Your task to perform on an android device: move a message to another label in the gmail app Image 0: 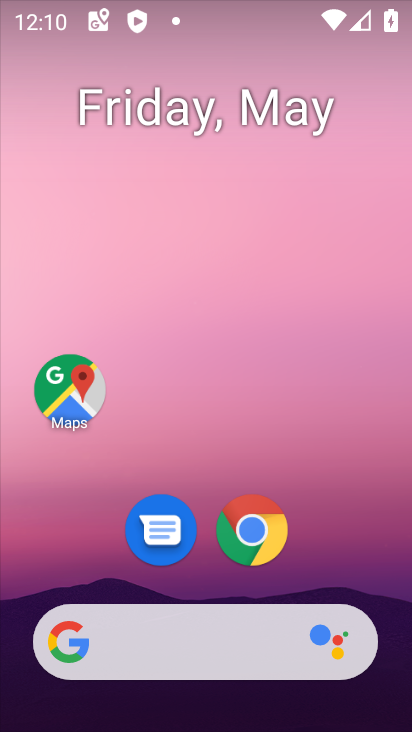
Step 0: drag from (347, 561) to (218, 89)
Your task to perform on an android device: move a message to another label in the gmail app Image 1: 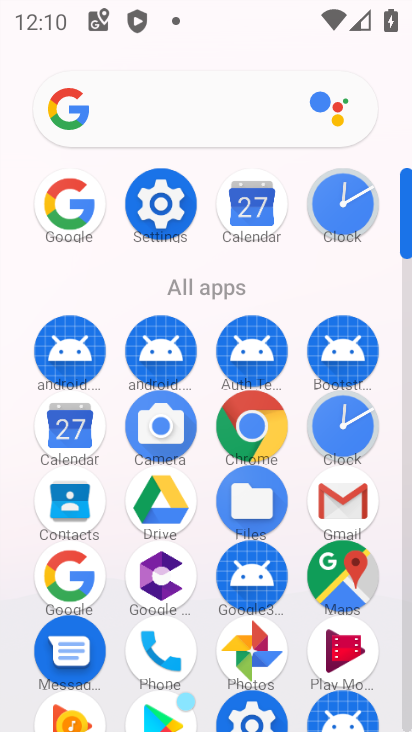
Step 1: click (341, 500)
Your task to perform on an android device: move a message to another label in the gmail app Image 2: 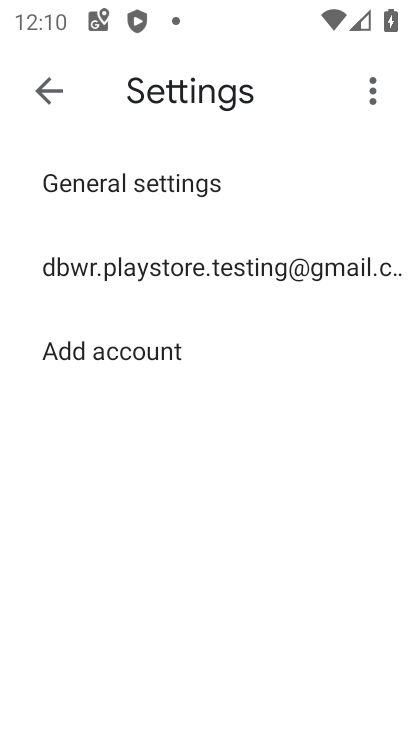
Step 2: click (47, 81)
Your task to perform on an android device: move a message to another label in the gmail app Image 3: 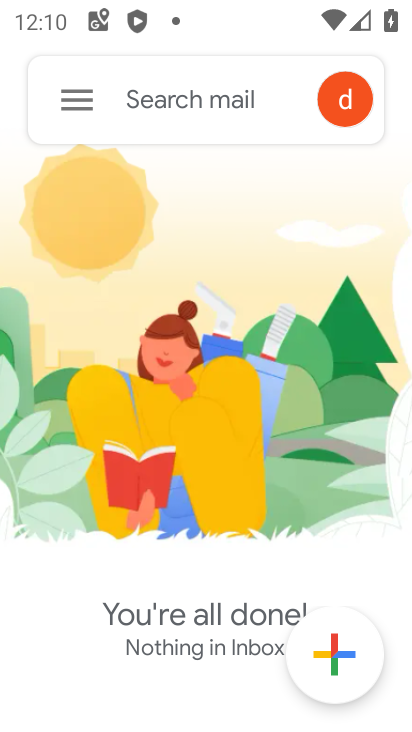
Step 3: click (62, 102)
Your task to perform on an android device: move a message to another label in the gmail app Image 4: 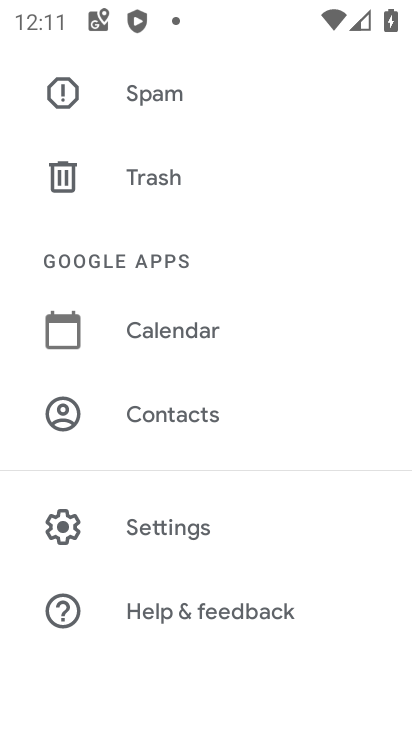
Step 4: drag from (188, 337) to (196, 441)
Your task to perform on an android device: move a message to another label in the gmail app Image 5: 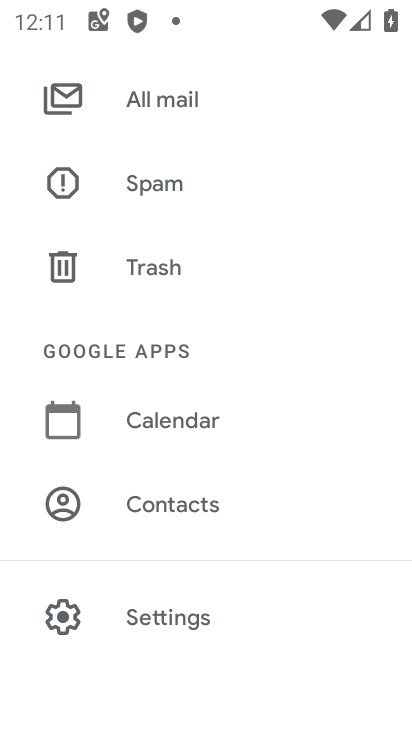
Step 5: drag from (173, 222) to (195, 418)
Your task to perform on an android device: move a message to another label in the gmail app Image 6: 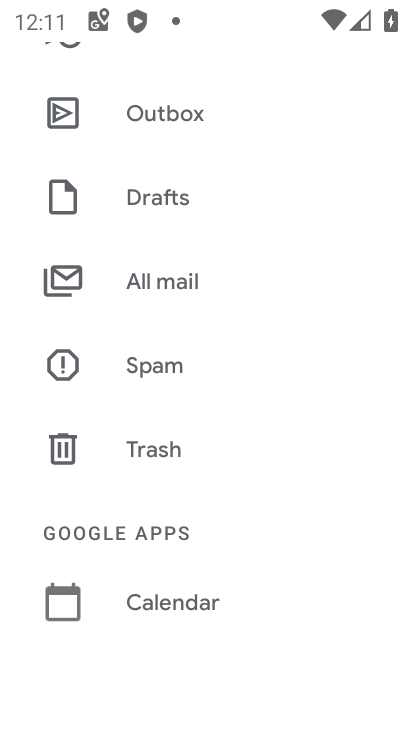
Step 6: click (159, 272)
Your task to perform on an android device: move a message to another label in the gmail app Image 7: 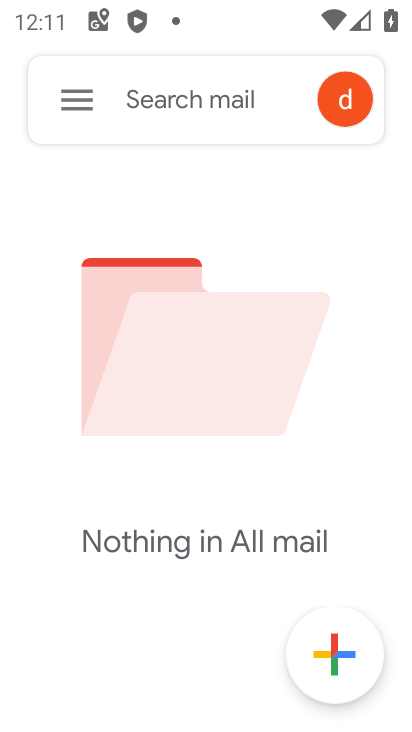
Step 7: click (71, 108)
Your task to perform on an android device: move a message to another label in the gmail app Image 8: 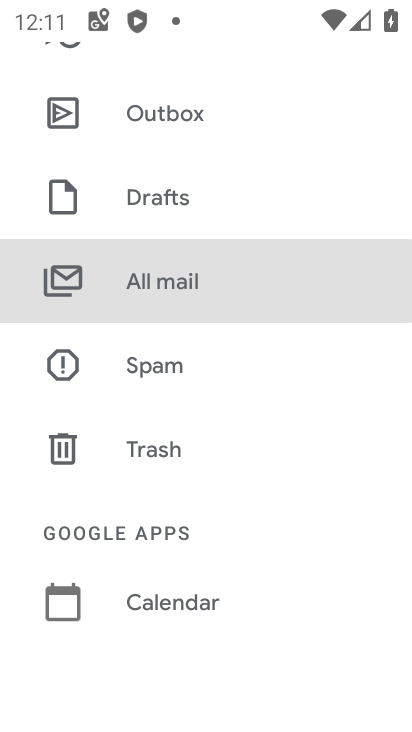
Step 8: drag from (174, 177) to (201, 301)
Your task to perform on an android device: move a message to another label in the gmail app Image 9: 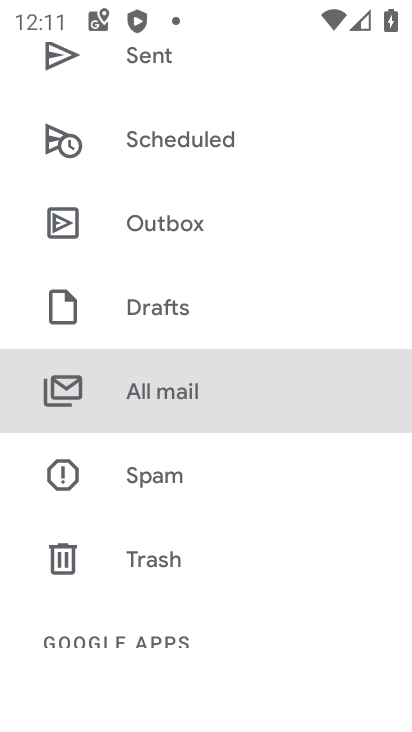
Step 9: drag from (180, 187) to (198, 370)
Your task to perform on an android device: move a message to another label in the gmail app Image 10: 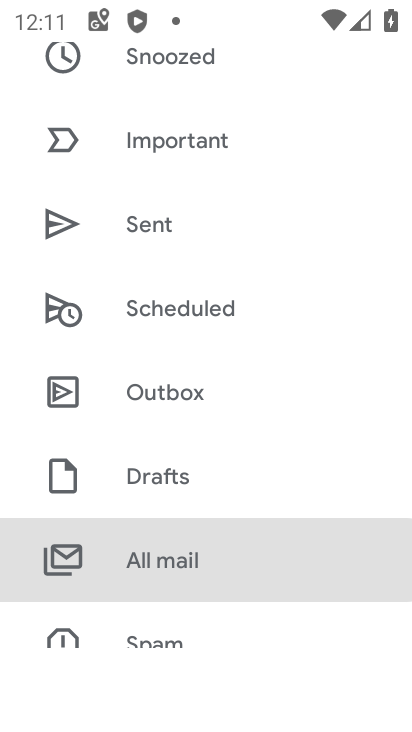
Step 10: drag from (182, 277) to (204, 386)
Your task to perform on an android device: move a message to another label in the gmail app Image 11: 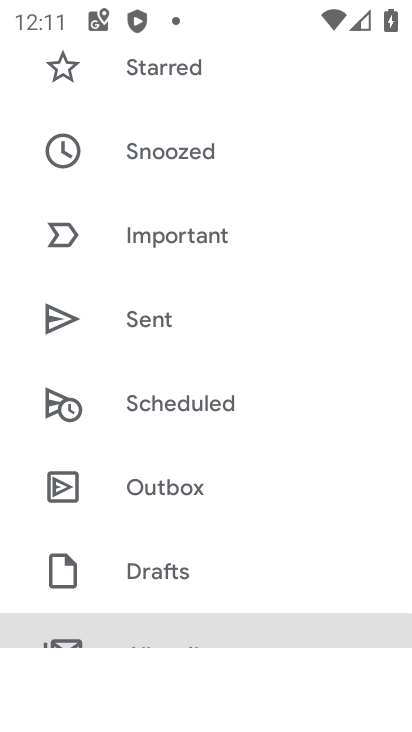
Step 11: drag from (180, 285) to (185, 391)
Your task to perform on an android device: move a message to another label in the gmail app Image 12: 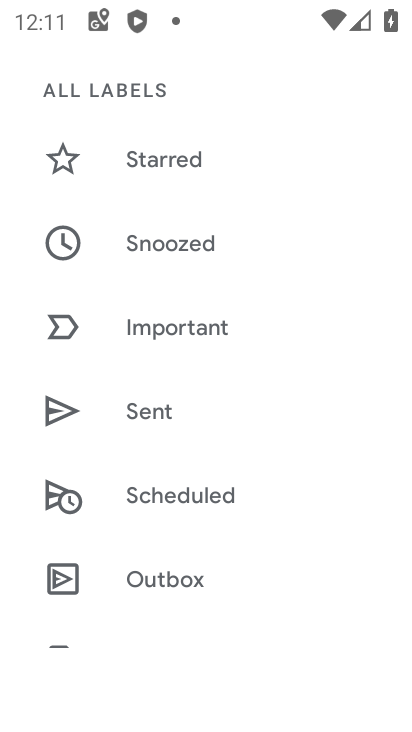
Step 12: drag from (169, 293) to (203, 398)
Your task to perform on an android device: move a message to another label in the gmail app Image 13: 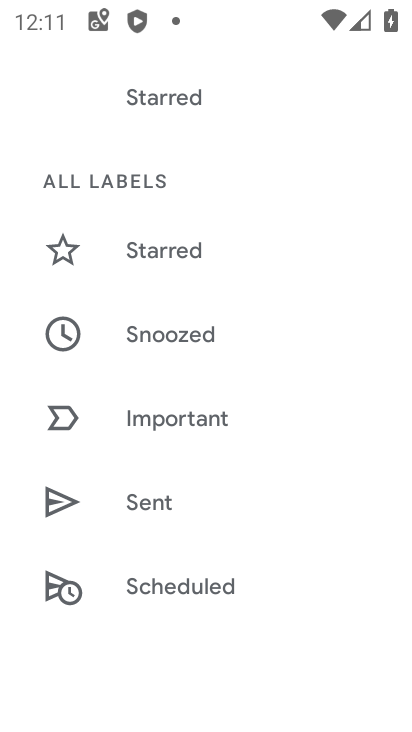
Step 13: drag from (183, 295) to (179, 387)
Your task to perform on an android device: move a message to another label in the gmail app Image 14: 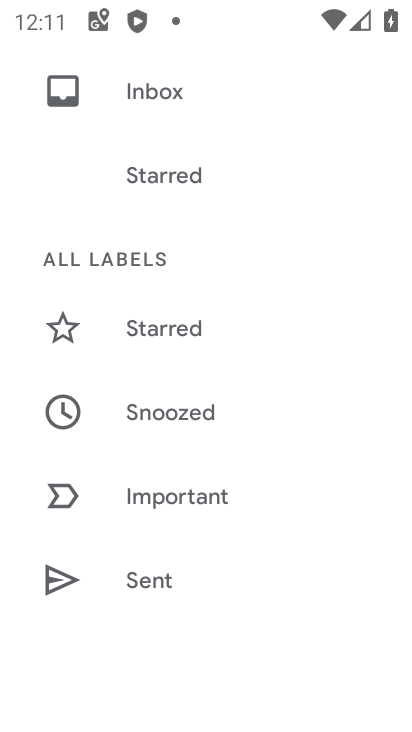
Step 14: drag from (154, 120) to (180, 232)
Your task to perform on an android device: move a message to another label in the gmail app Image 15: 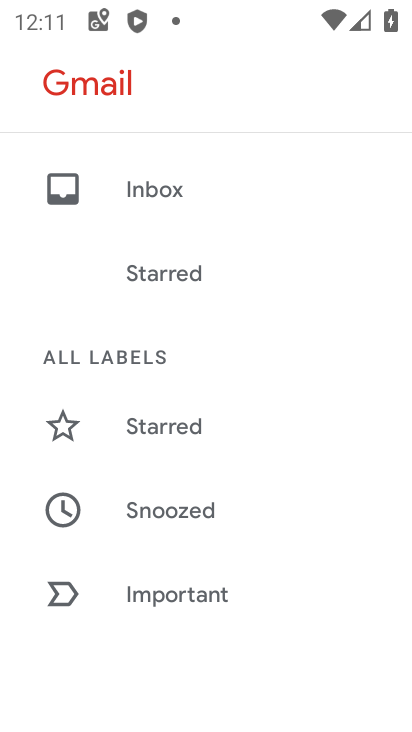
Step 15: click (167, 187)
Your task to perform on an android device: move a message to another label in the gmail app Image 16: 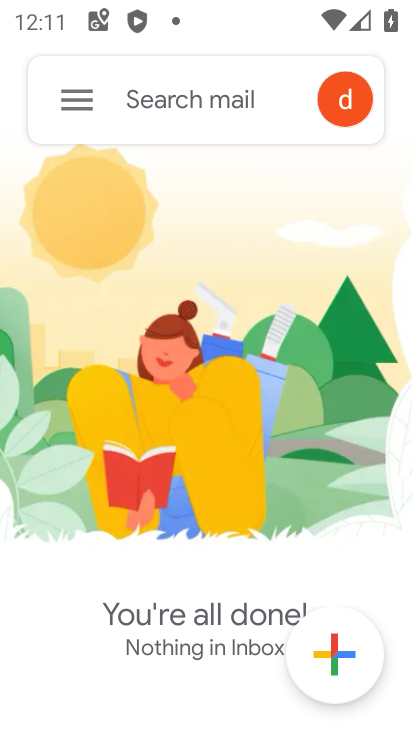
Step 16: click (69, 98)
Your task to perform on an android device: move a message to another label in the gmail app Image 17: 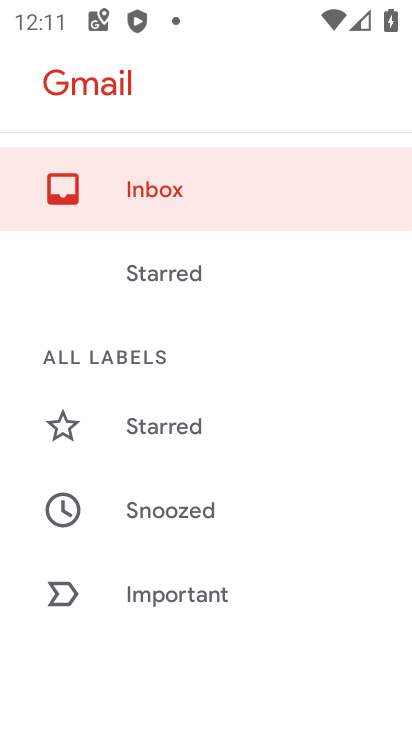
Step 17: click (150, 272)
Your task to perform on an android device: move a message to another label in the gmail app Image 18: 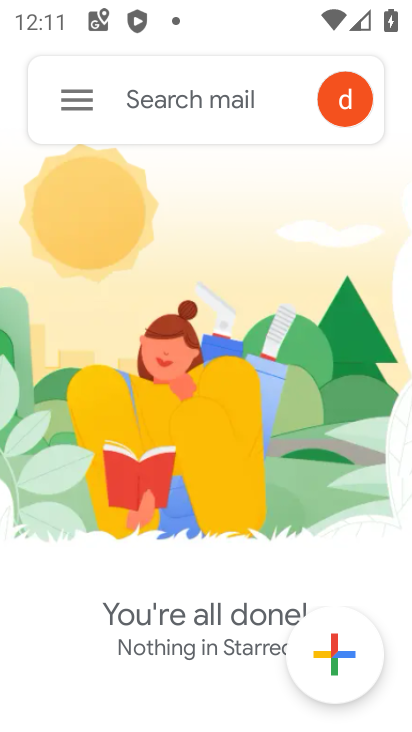
Step 18: click (78, 102)
Your task to perform on an android device: move a message to another label in the gmail app Image 19: 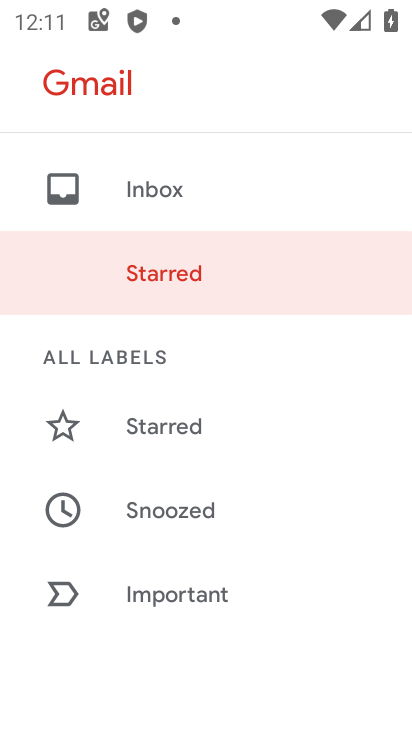
Step 19: click (159, 518)
Your task to perform on an android device: move a message to another label in the gmail app Image 20: 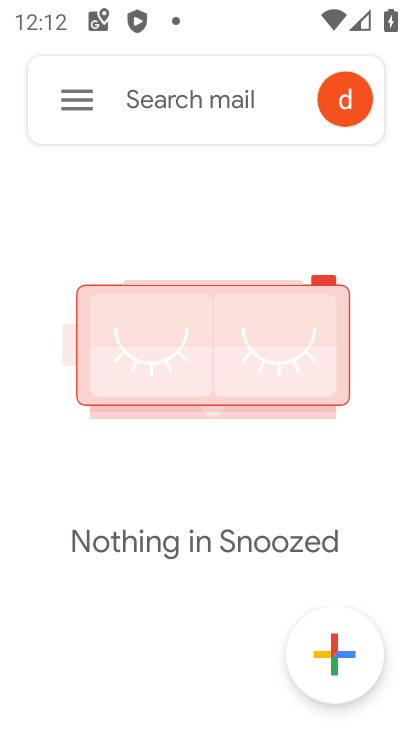
Step 20: click (80, 104)
Your task to perform on an android device: move a message to another label in the gmail app Image 21: 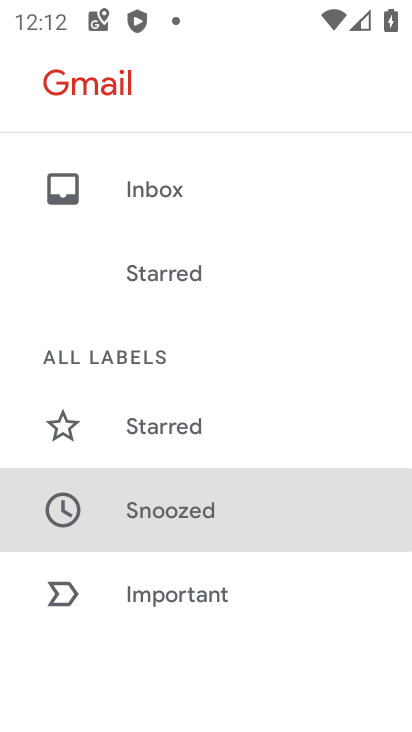
Step 21: drag from (145, 561) to (225, 416)
Your task to perform on an android device: move a message to another label in the gmail app Image 22: 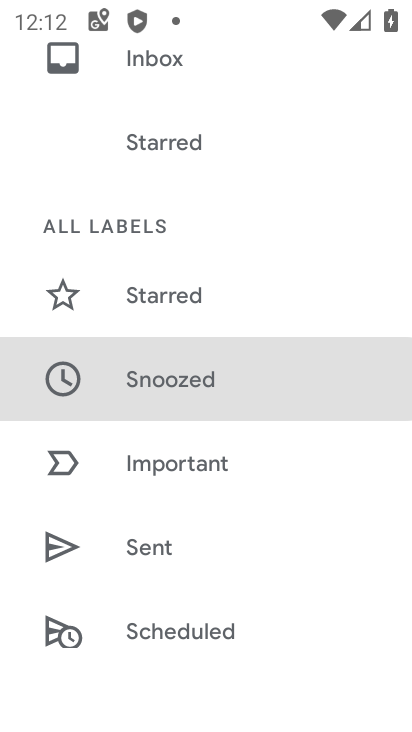
Step 22: click (189, 466)
Your task to perform on an android device: move a message to another label in the gmail app Image 23: 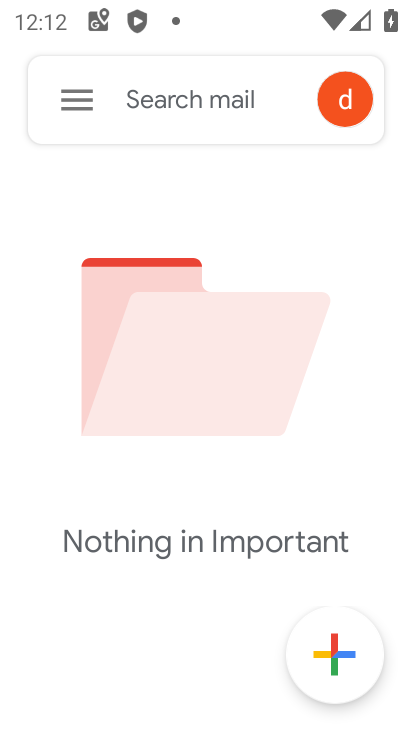
Step 23: click (82, 105)
Your task to perform on an android device: move a message to another label in the gmail app Image 24: 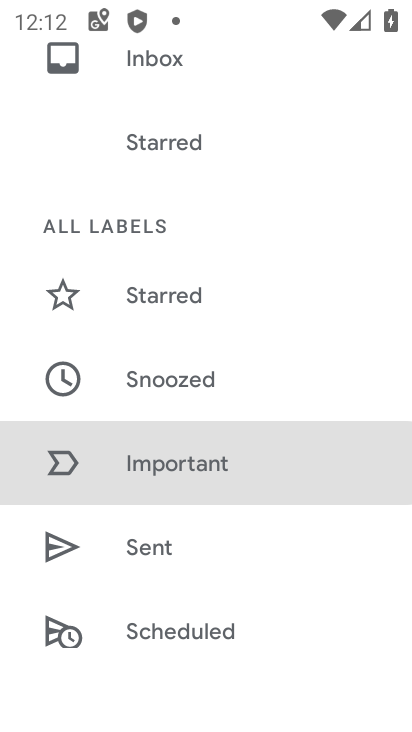
Step 24: click (168, 564)
Your task to perform on an android device: move a message to another label in the gmail app Image 25: 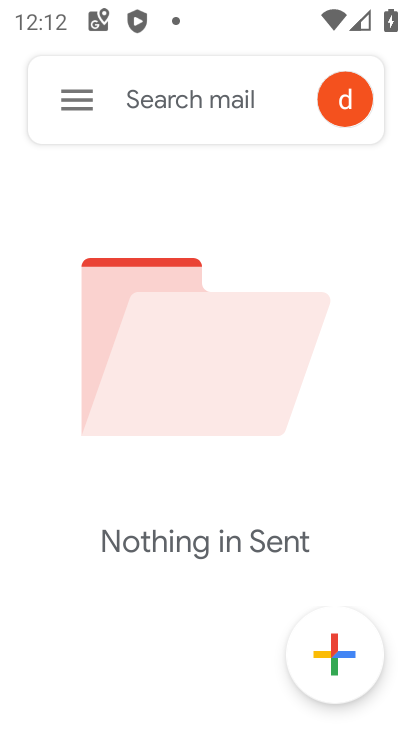
Step 25: task complete